Your task to perform on an android device: open a bookmark in the chrome app Image 0: 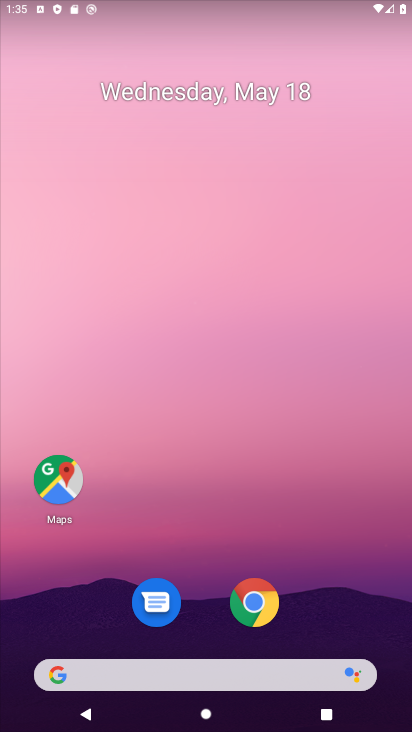
Step 0: press home button
Your task to perform on an android device: open a bookmark in the chrome app Image 1: 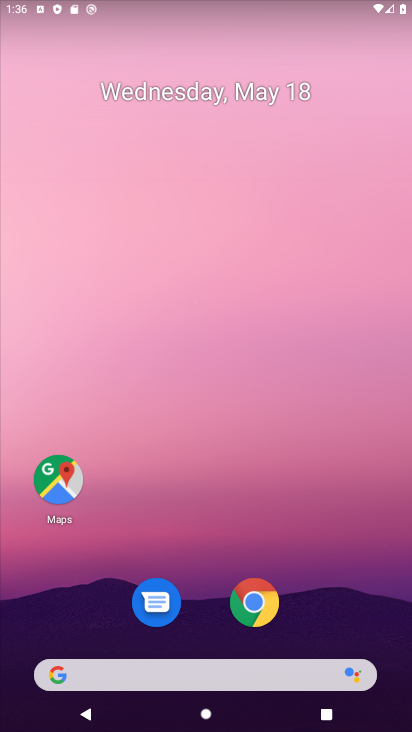
Step 1: click (266, 614)
Your task to perform on an android device: open a bookmark in the chrome app Image 2: 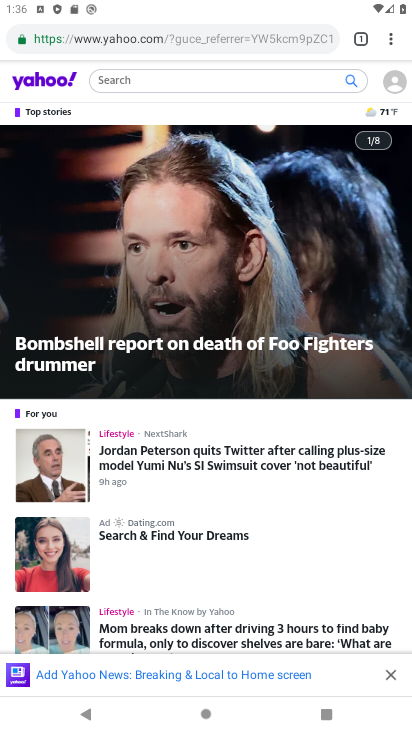
Step 2: click (390, 34)
Your task to perform on an android device: open a bookmark in the chrome app Image 3: 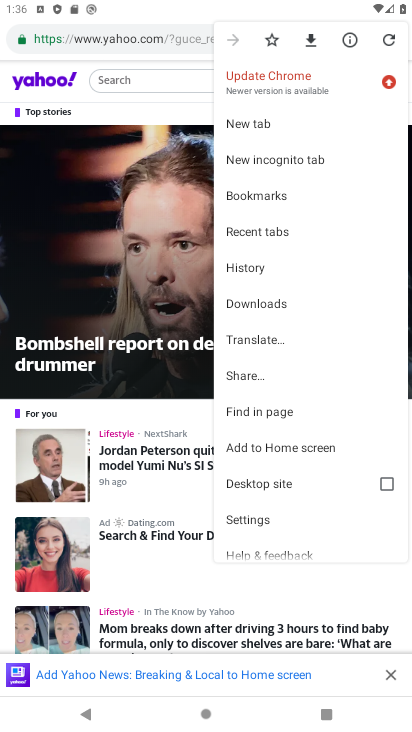
Step 3: click (280, 188)
Your task to perform on an android device: open a bookmark in the chrome app Image 4: 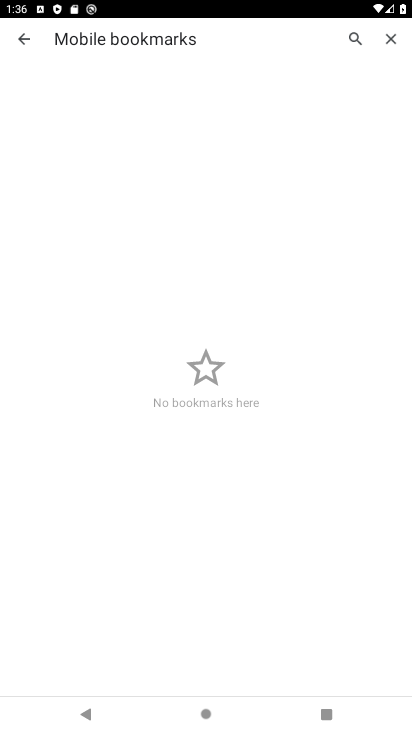
Step 4: task complete